Your task to perform on an android device: turn on notifications settings in the gmail app Image 0: 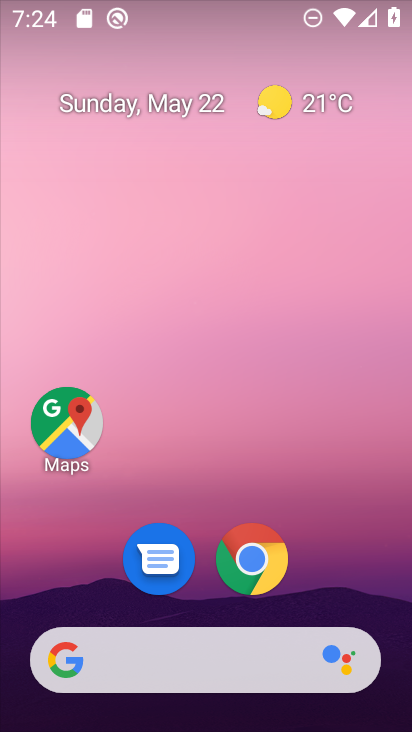
Step 0: drag from (270, 687) to (380, 156)
Your task to perform on an android device: turn on notifications settings in the gmail app Image 1: 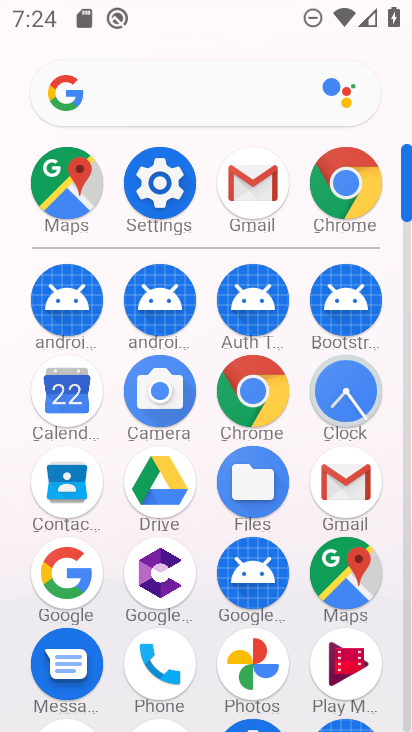
Step 1: click (354, 498)
Your task to perform on an android device: turn on notifications settings in the gmail app Image 2: 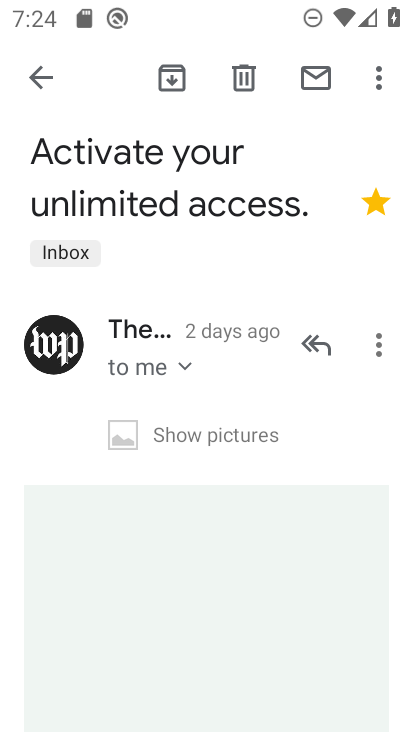
Step 2: click (37, 84)
Your task to perform on an android device: turn on notifications settings in the gmail app Image 3: 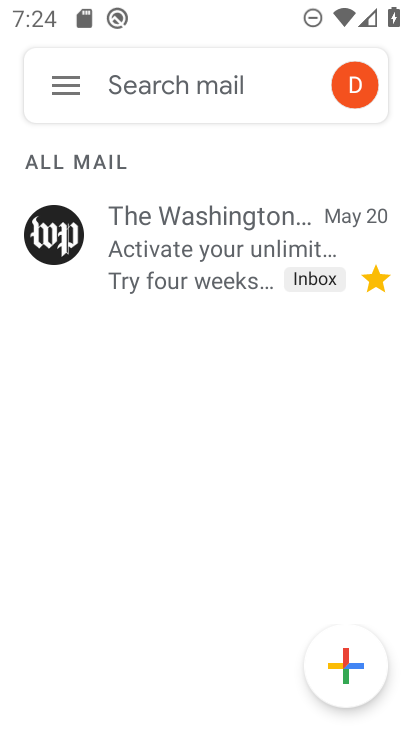
Step 3: click (46, 85)
Your task to perform on an android device: turn on notifications settings in the gmail app Image 4: 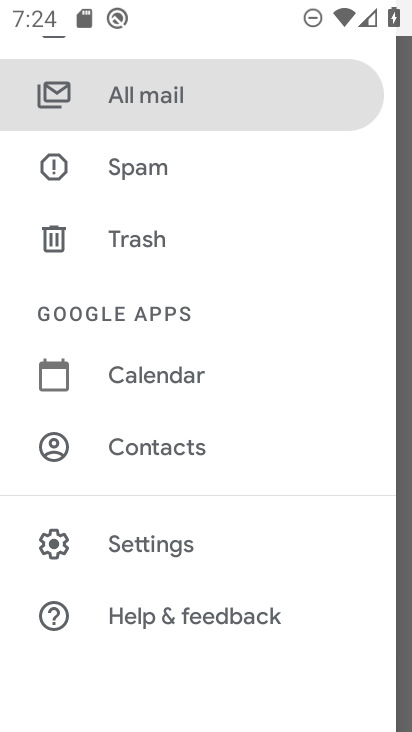
Step 4: click (176, 542)
Your task to perform on an android device: turn on notifications settings in the gmail app Image 5: 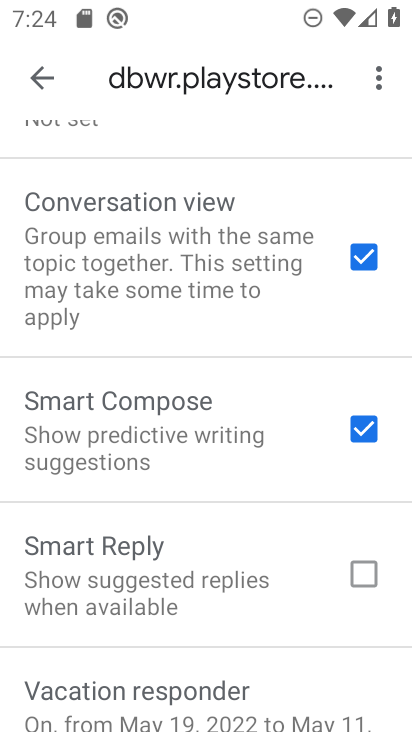
Step 5: drag from (169, 267) to (199, 553)
Your task to perform on an android device: turn on notifications settings in the gmail app Image 6: 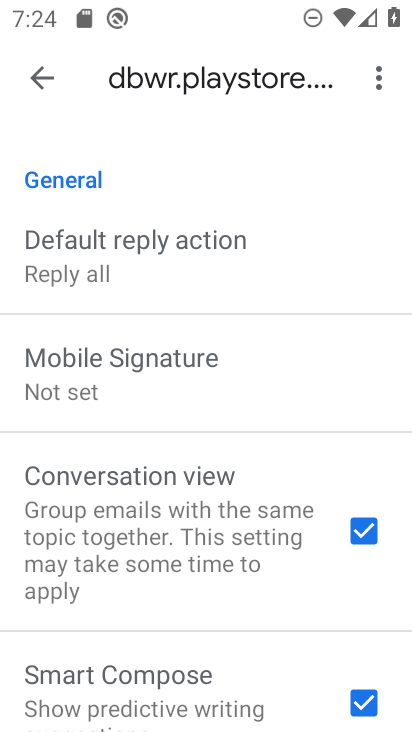
Step 6: drag from (189, 221) to (253, 523)
Your task to perform on an android device: turn on notifications settings in the gmail app Image 7: 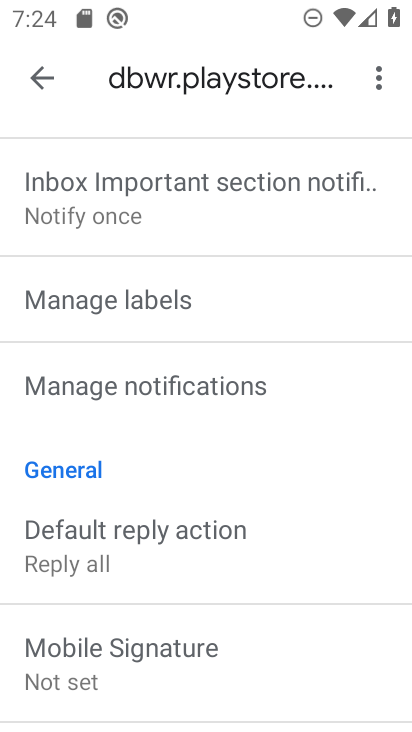
Step 7: drag from (201, 344) to (243, 544)
Your task to perform on an android device: turn on notifications settings in the gmail app Image 8: 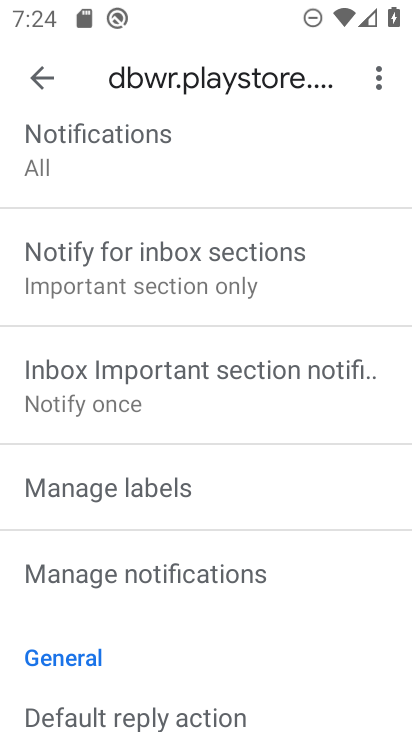
Step 8: drag from (165, 279) to (183, 473)
Your task to perform on an android device: turn on notifications settings in the gmail app Image 9: 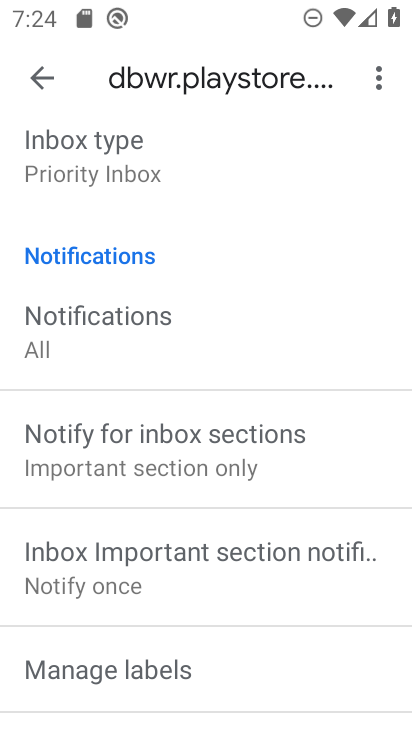
Step 9: click (102, 344)
Your task to perform on an android device: turn on notifications settings in the gmail app Image 10: 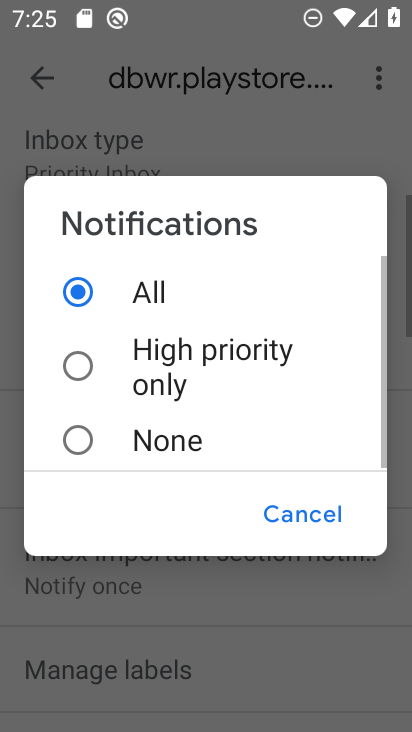
Step 10: task complete